Your task to perform on an android device: When is my next meeting? Image 0: 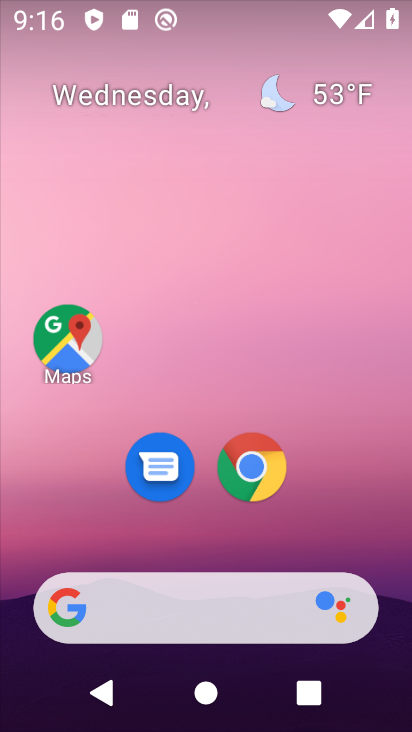
Step 0: drag from (357, 513) to (345, 83)
Your task to perform on an android device: When is my next meeting? Image 1: 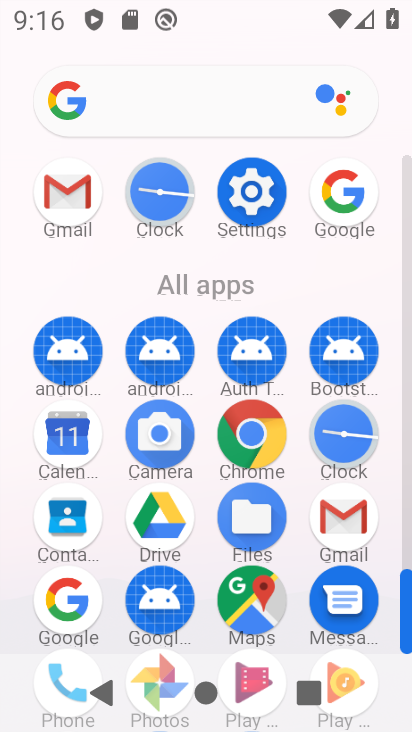
Step 1: click (78, 417)
Your task to perform on an android device: When is my next meeting? Image 2: 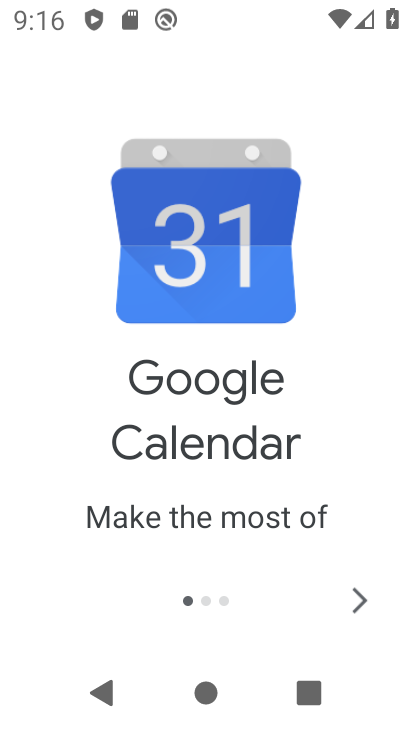
Step 2: click (340, 608)
Your task to perform on an android device: When is my next meeting? Image 3: 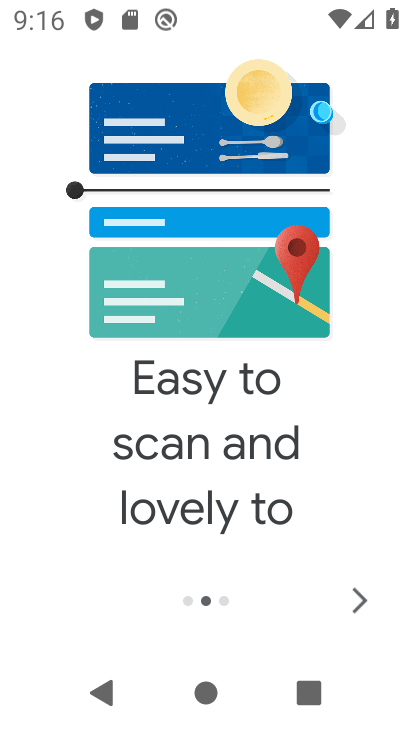
Step 3: click (359, 599)
Your task to perform on an android device: When is my next meeting? Image 4: 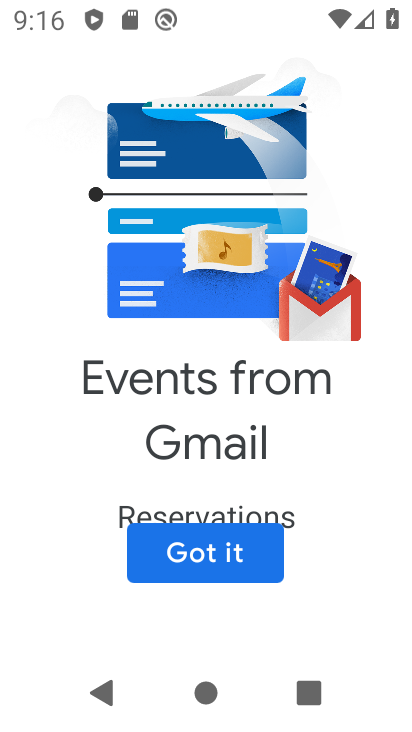
Step 4: click (238, 572)
Your task to perform on an android device: When is my next meeting? Image 5: 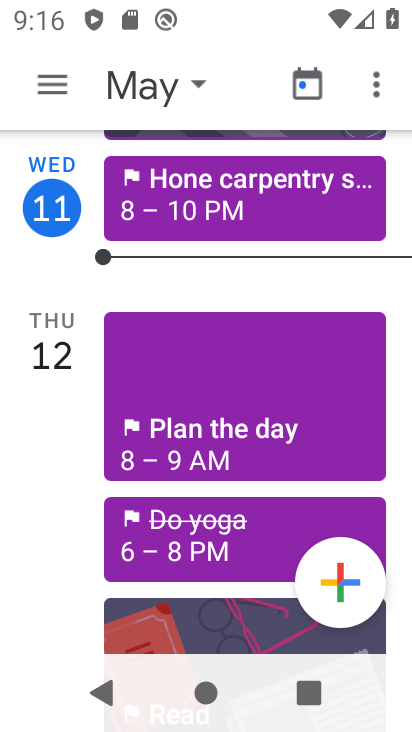
Step 5: press home button
Your task to perform on an android device: When is my next meeting? Image 6: 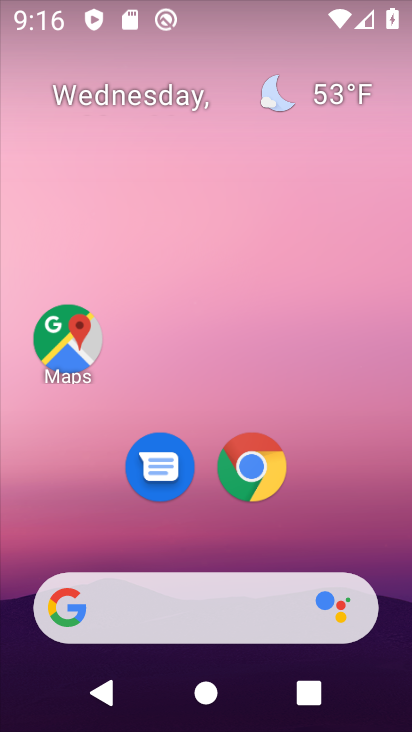
Step 6: drag from (336, 525) to (351, 193)
Your task to perform on an android device: When is my next meeting? Image 7: 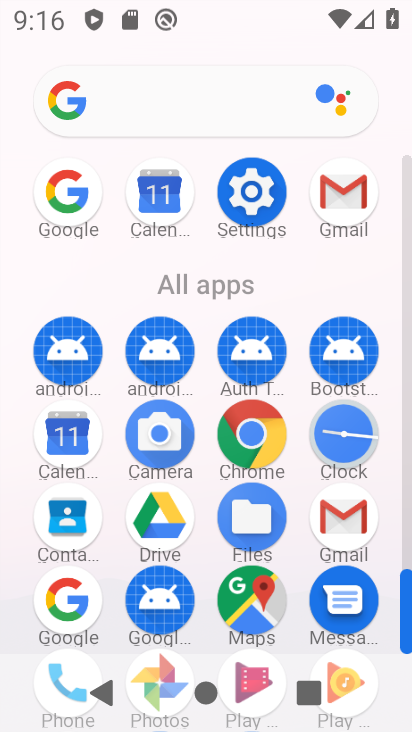
Step 7: click (70, 444)
Your task to perform on an android device: When is my next meeting? Image 8: 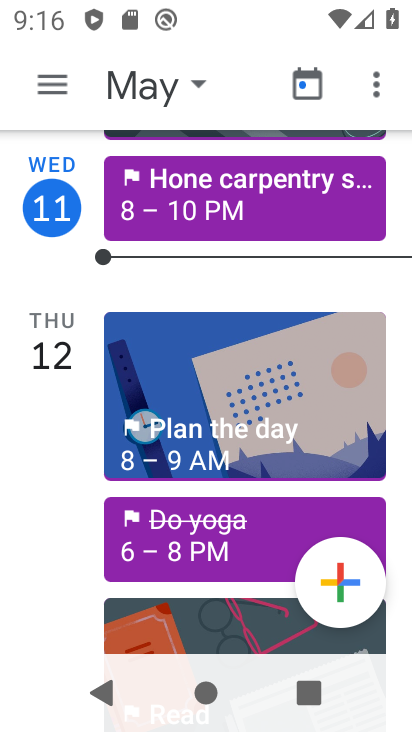
Step 8: task complete